Your task to perform on an android device: Open the map Image 0: 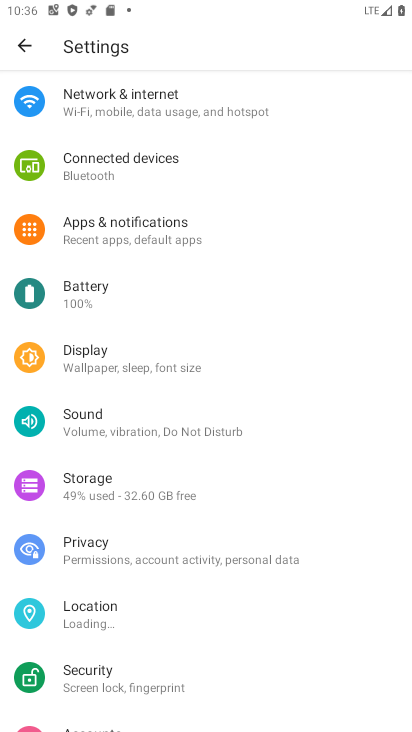
Step 0: press home button
Your task to perform on an android device: Open the map Image 1: 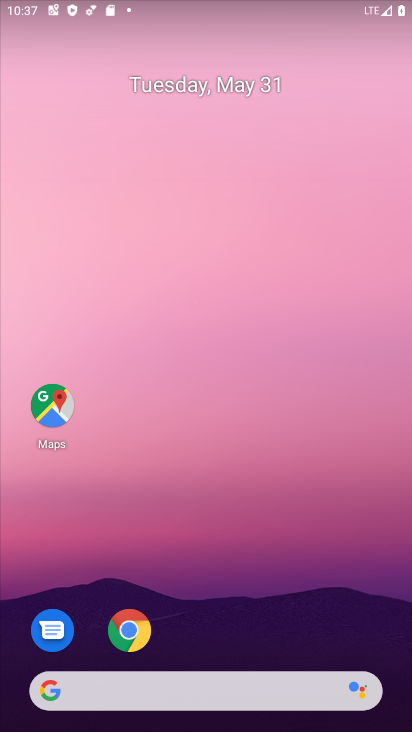
Step 1: click (56, 414)
Your task to perform on an android device: Open the map Image 2: 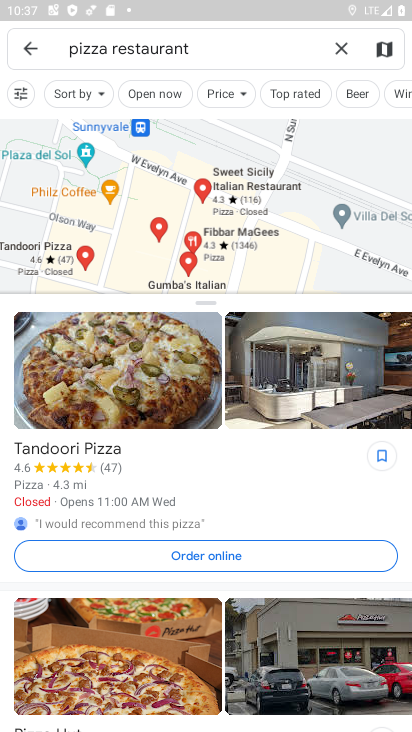
Step 2: click (338, 51)
Your task to perform on an android device: Open the map Image 3: 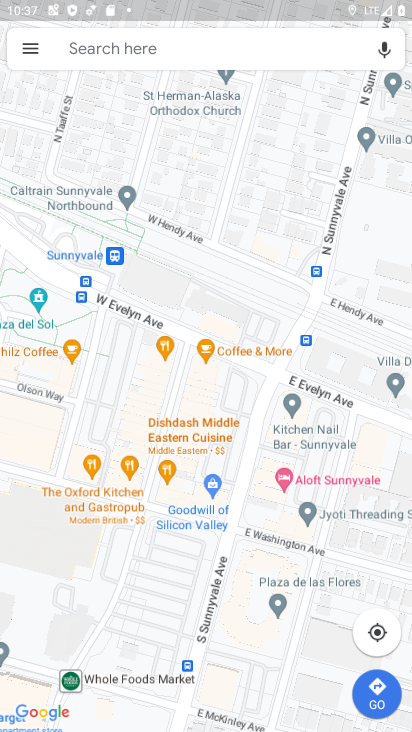
Step 3: task complete